Your task to perform on an android device: toggle notification dots Image 0: 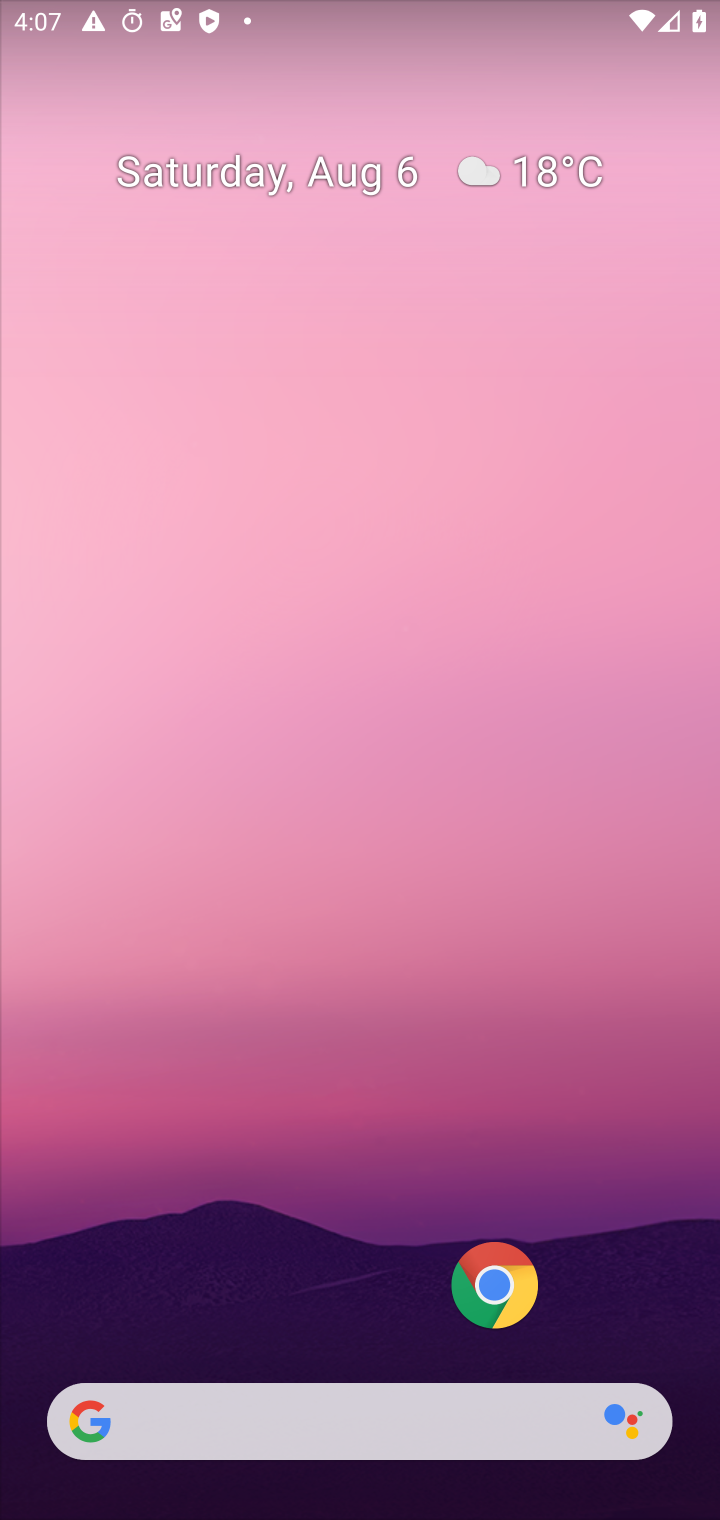
Step 0: press home button
Your task to perform on an android device: toggle notification dots Image 1: 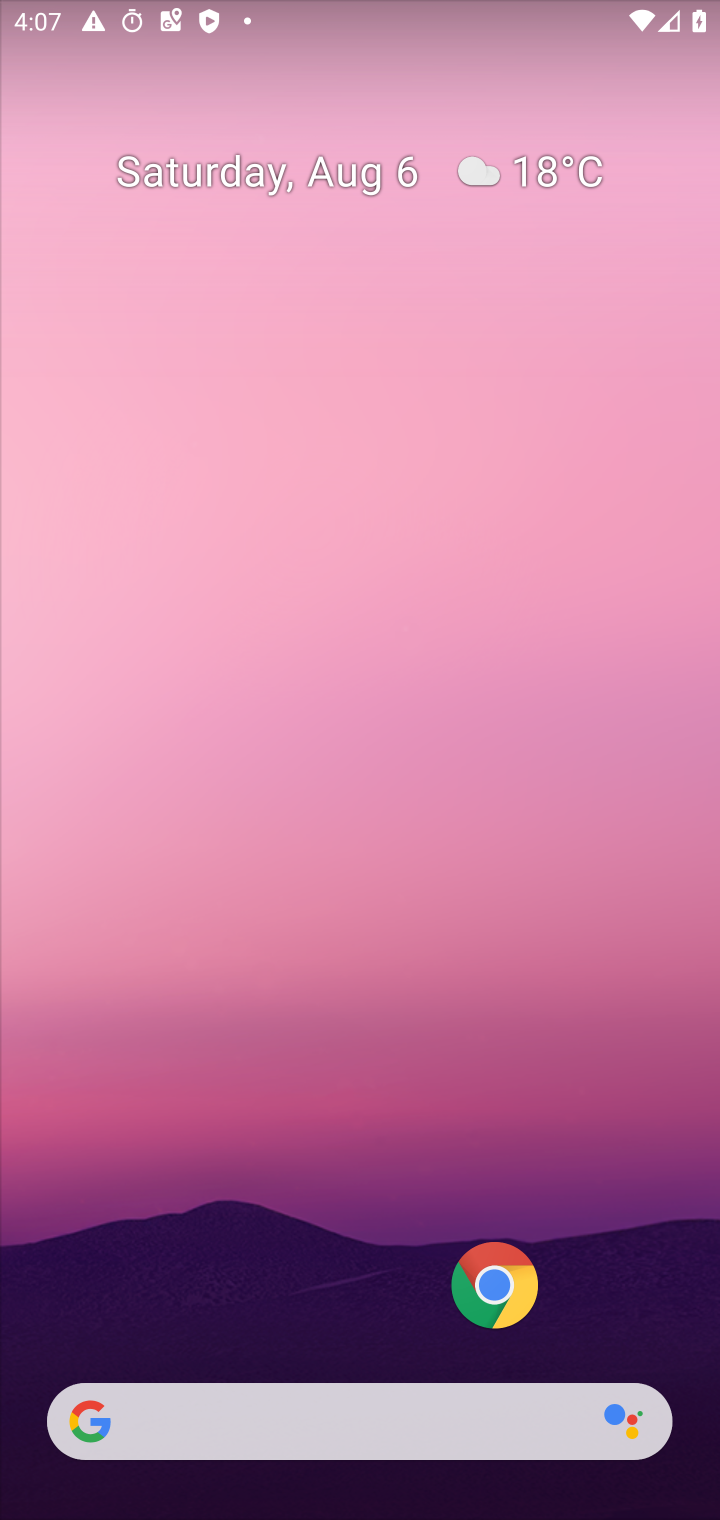
Step 1: drag from (415, 725) to (436, 196)
Your task to perform on an android device: toggle notification dots Image 2: 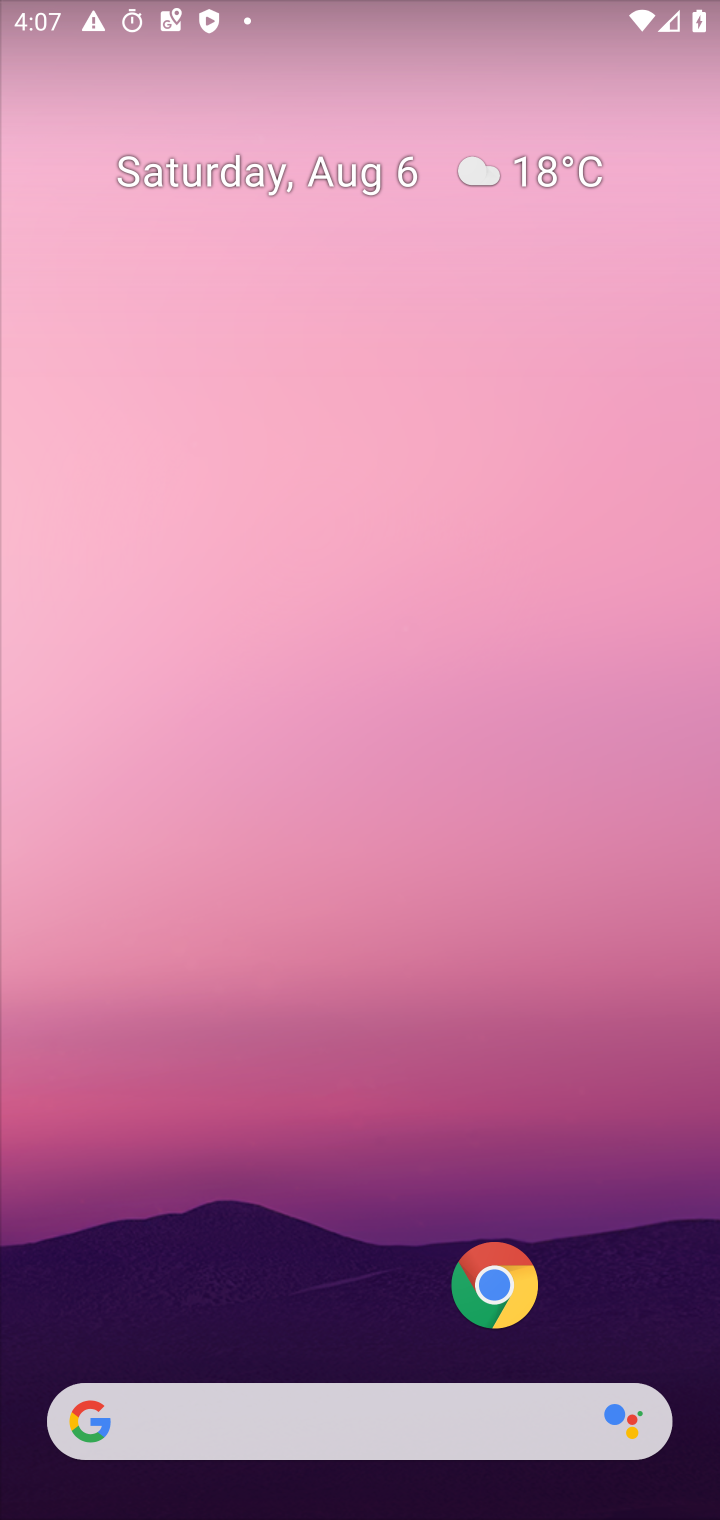
Step 2: drag from (342, 1319) to (521, 227)
Your task to perform on an android device: toggle notification dots Image 3: 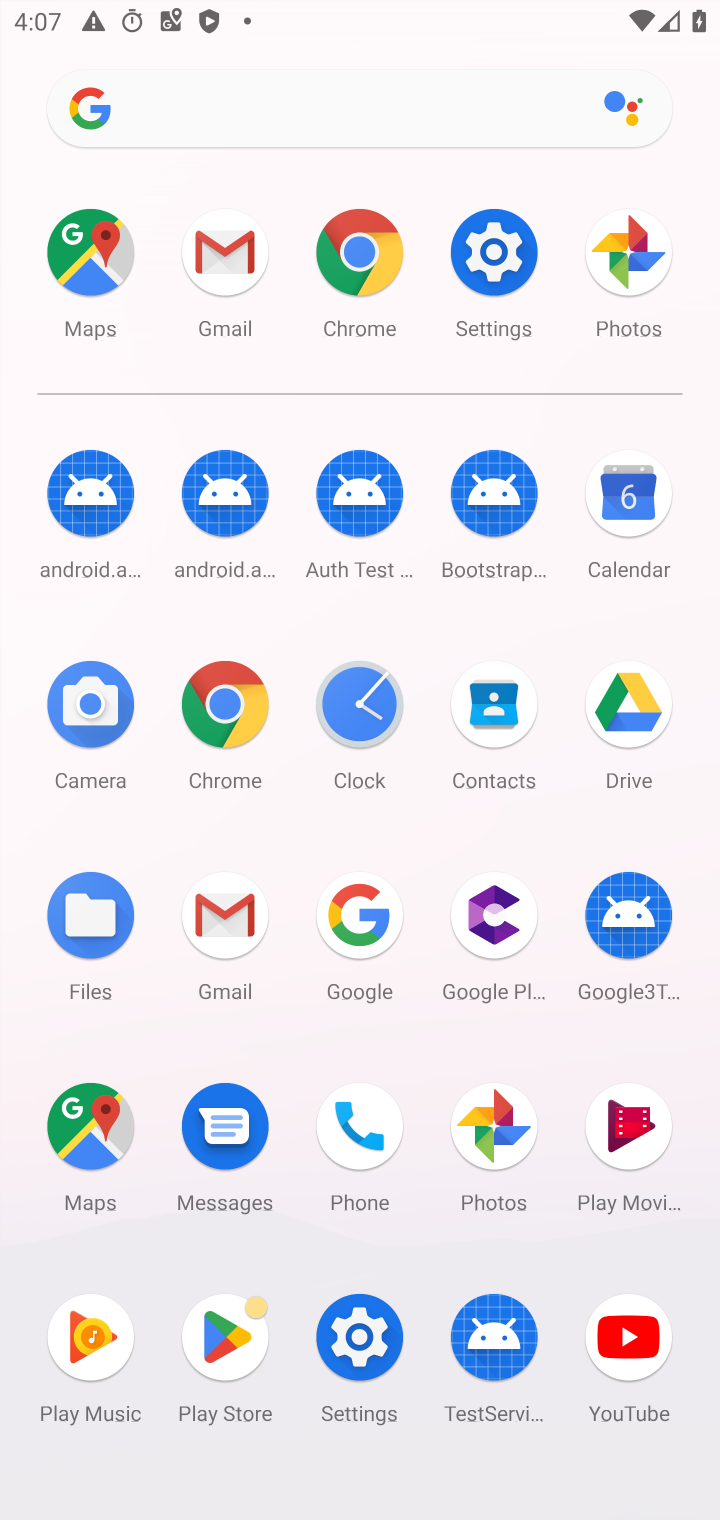
Step 3: click (353, 1333)
Your task to perform on an android device: toggle notification dots Image 4: 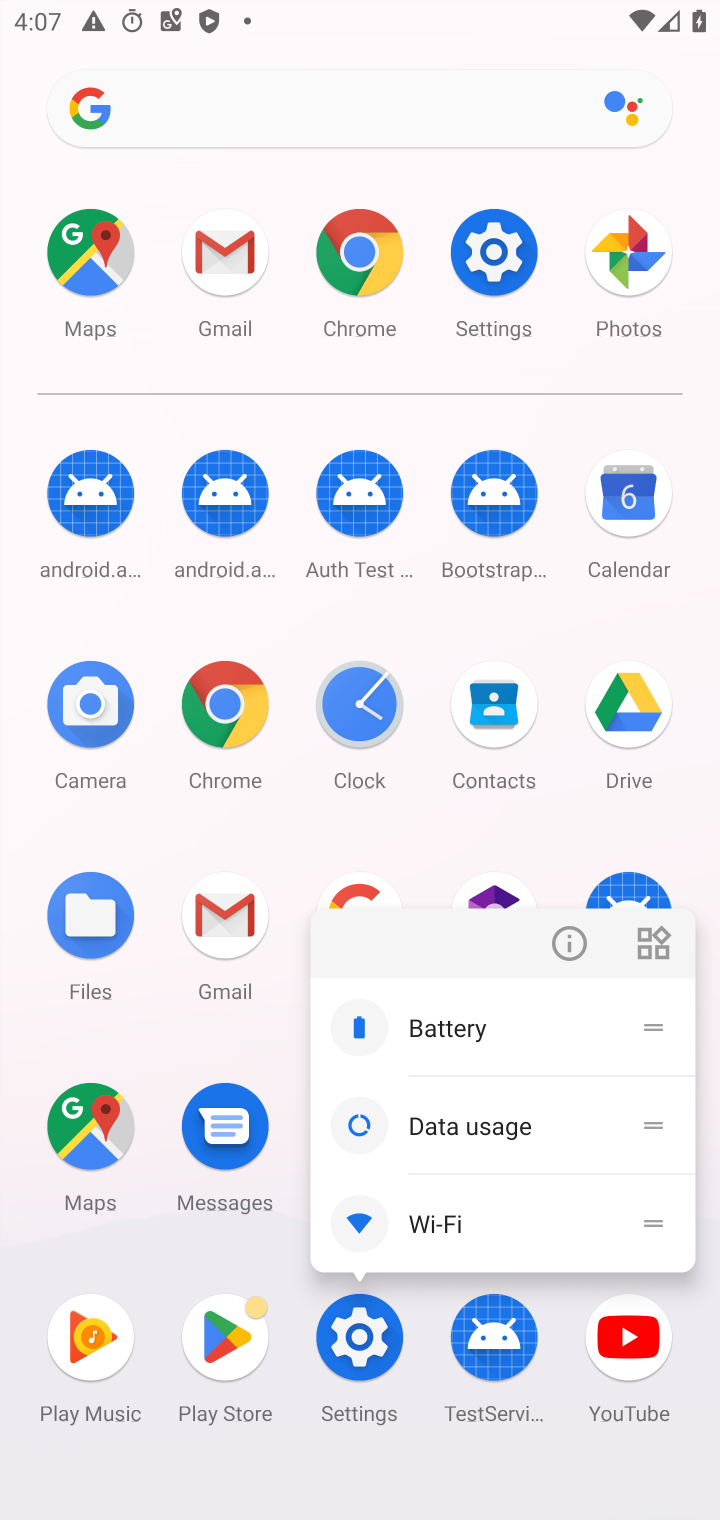
Step 4: click (361, 1329)
Your task to perform on an android device: toggle notification dots Image 5: 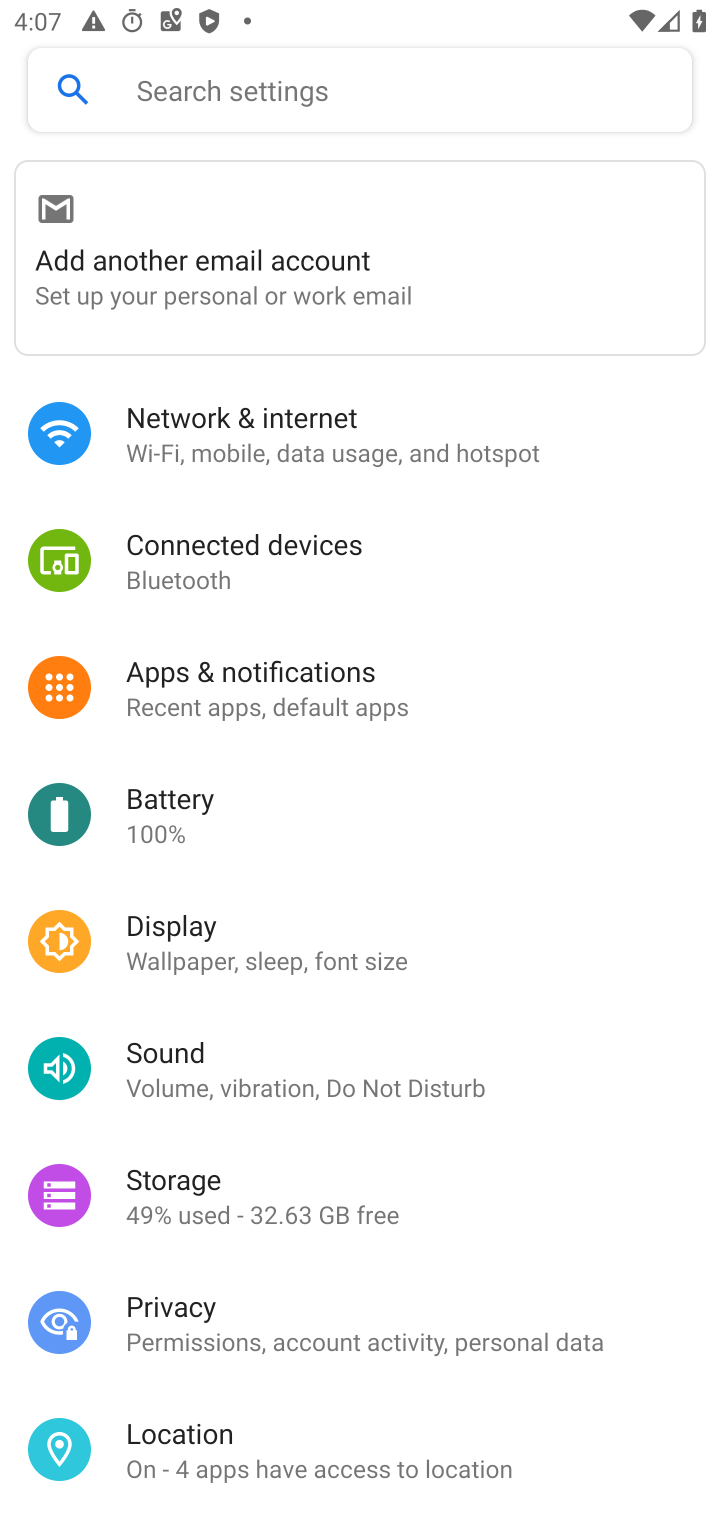
Step 5: click (268, 688)
Your task to perform on an android device: toggle notification dots Image 6: 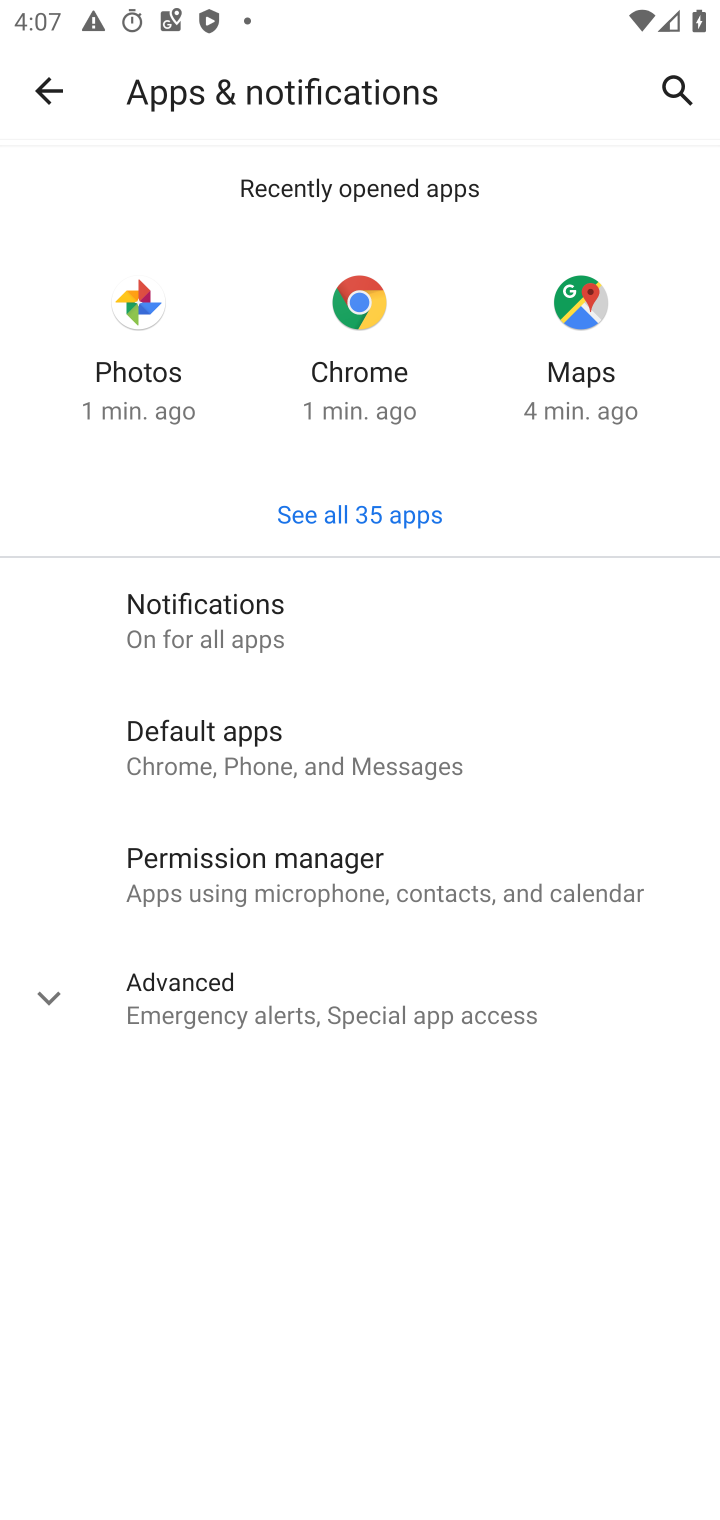
Step 6: click (141, 610)
Your task to perform on an android device: toggle notification dots Image 7: 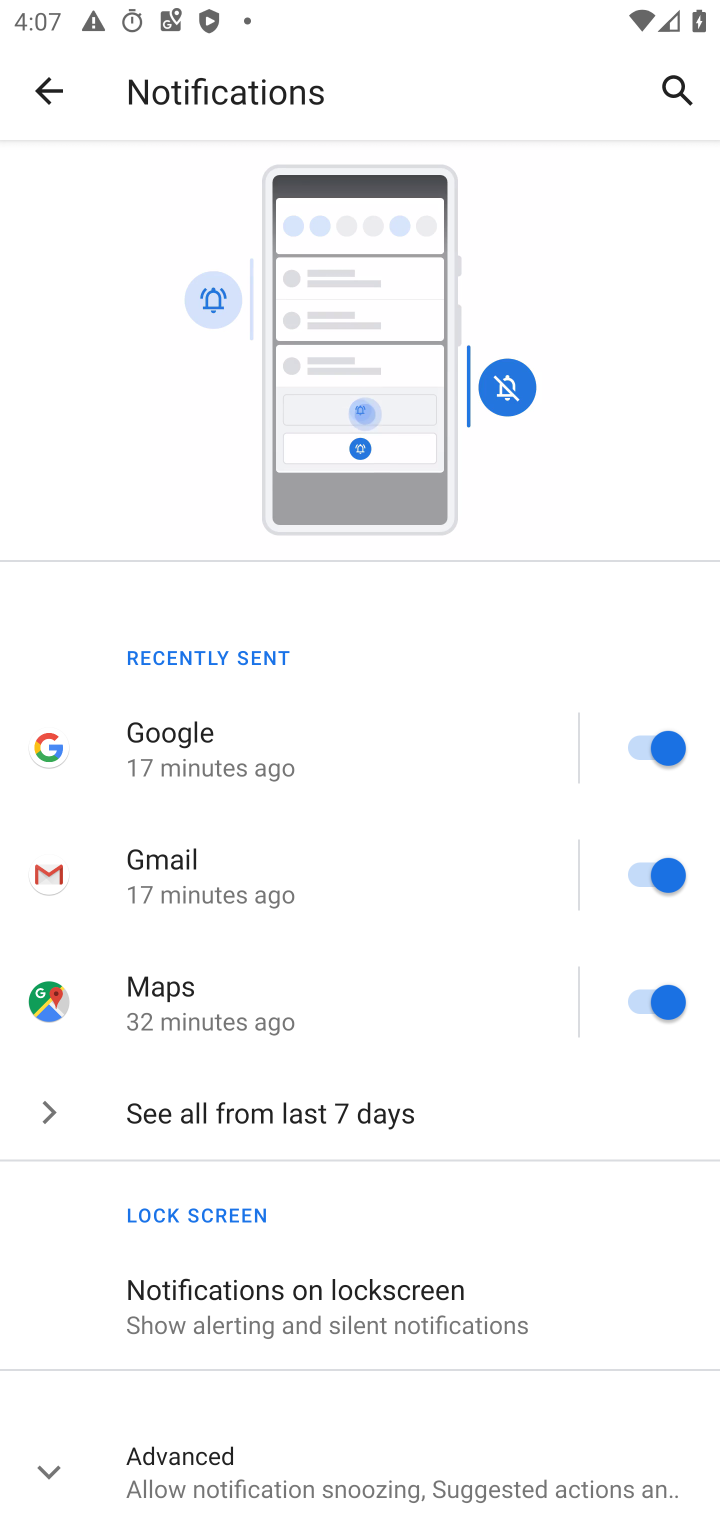
Step 7: drag from (392, 775) to (399, 689)
Your task to perform on an android device: toggle notification dots Image 8: 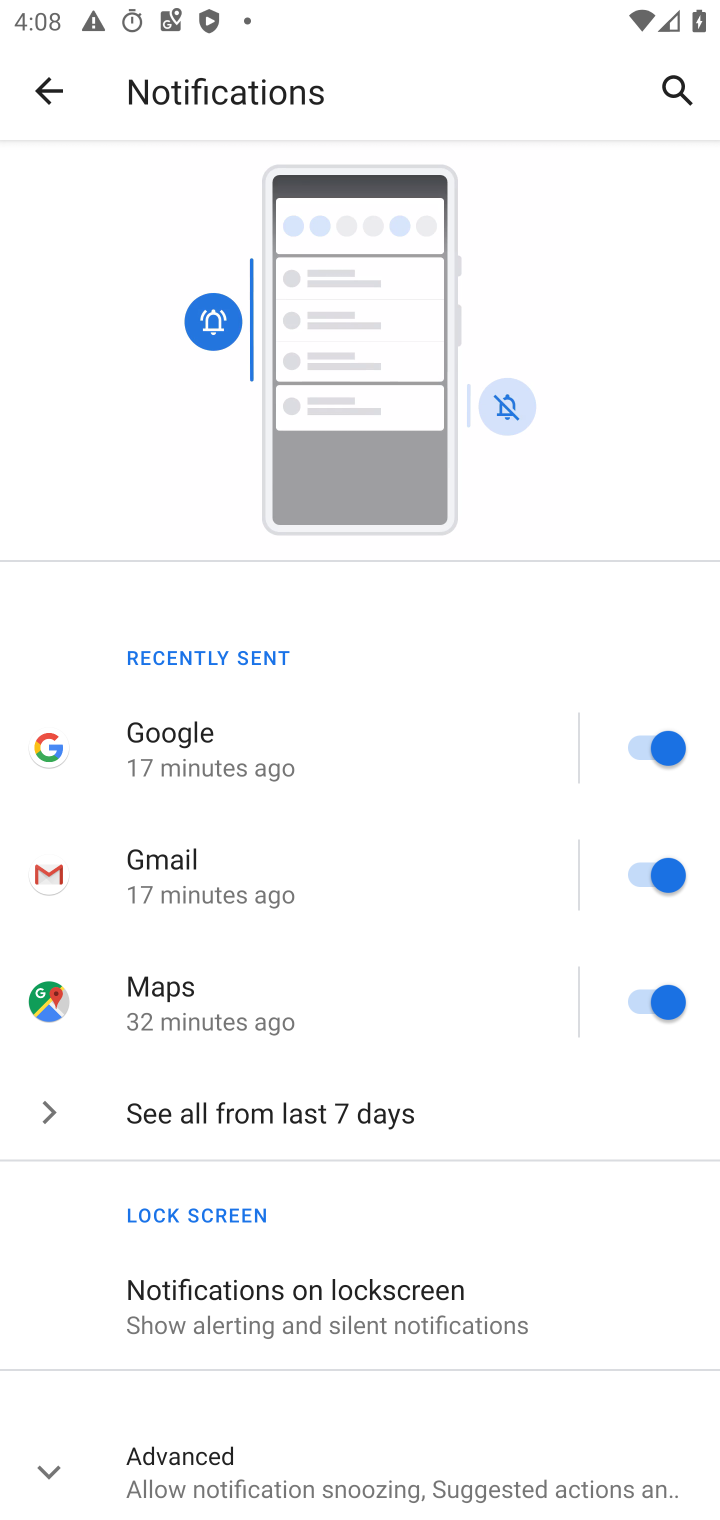
Step 8: click (81, 1444)
Your task to perform on an android device: toggle notification dots Image 9: 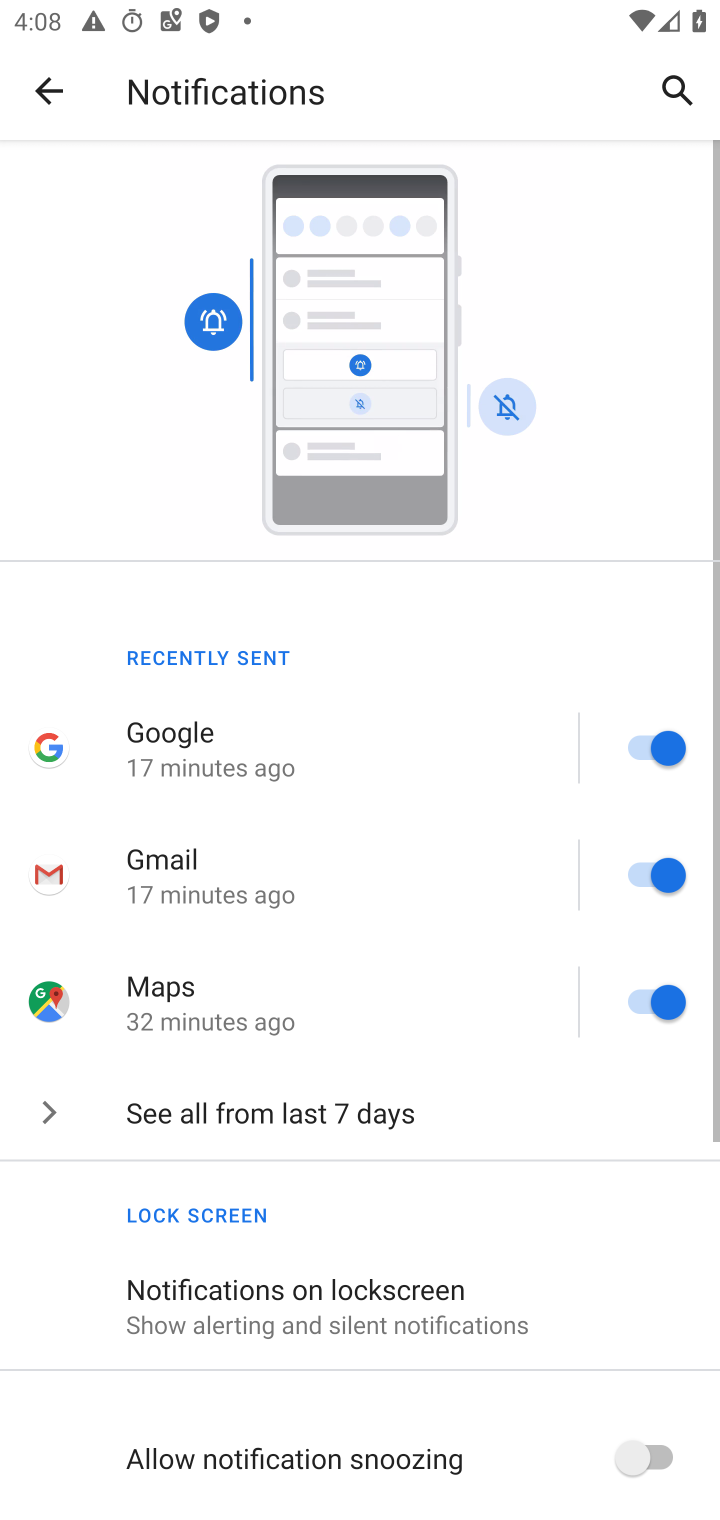
Step 9: drag from (257, 1411) to (352, 573)
Your task to perform on an android device: toggle notification dots Image 10: 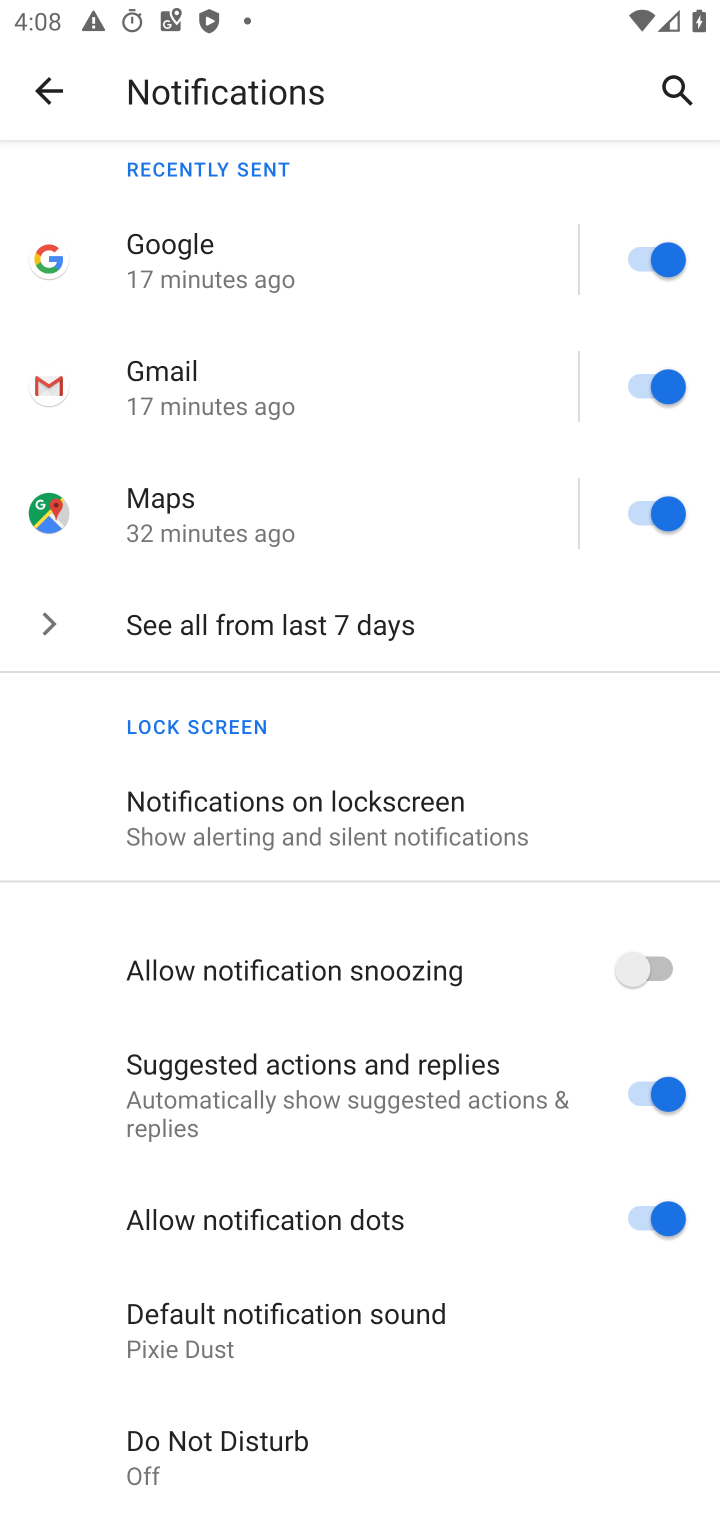
Step 10: click (637, 1205)
Your task to perform on an android device: toggle notification dots Image 11: 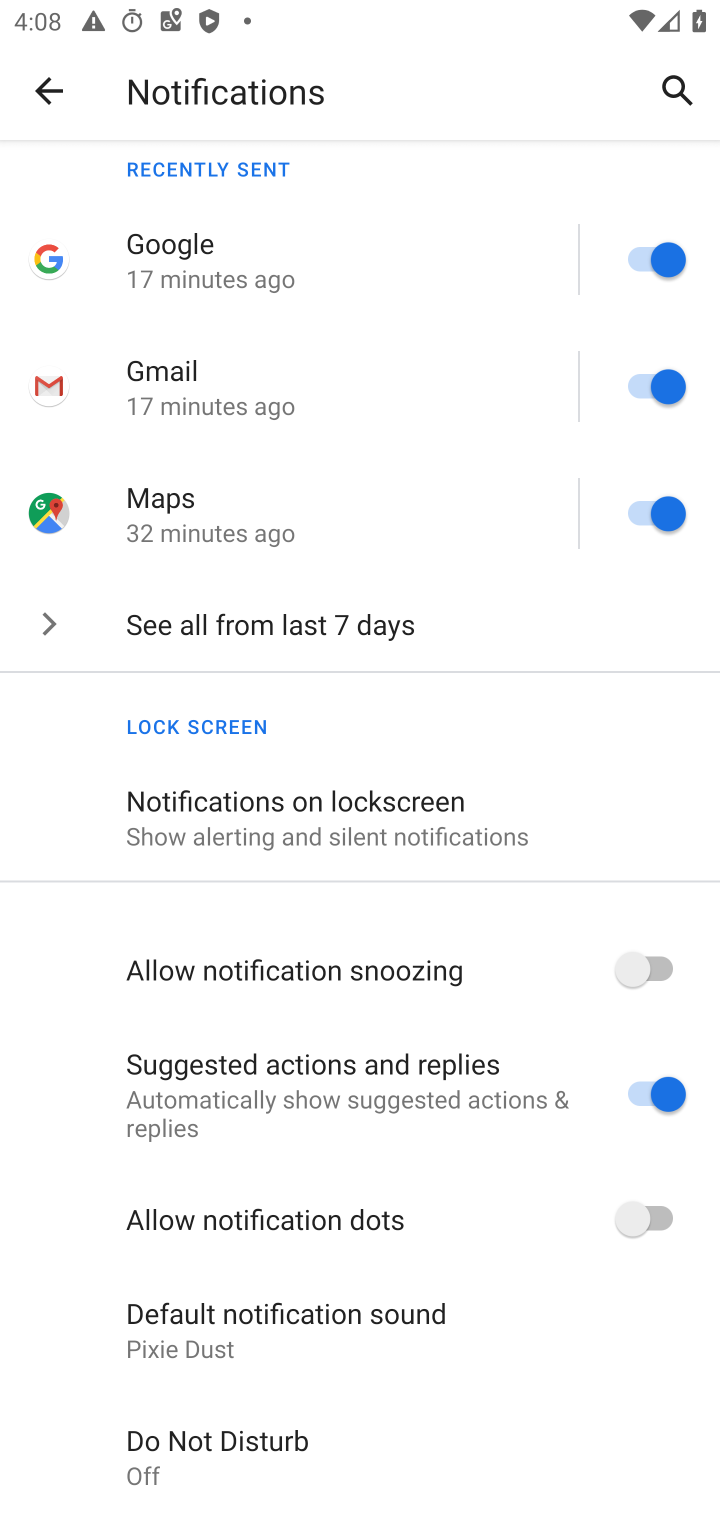
Step 11: task complete